Your task to perform on an android device: What's the weather today? Image 0: 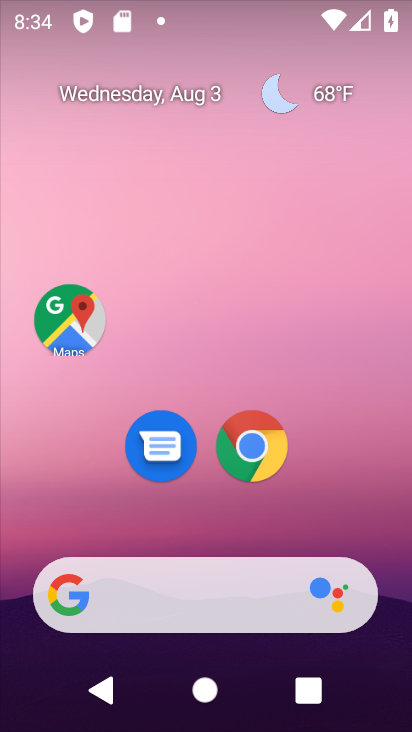
Step 0: drag from (392, 677) to (343, 186)
Your task to perform on an android device: What's the weather today? Image 1: 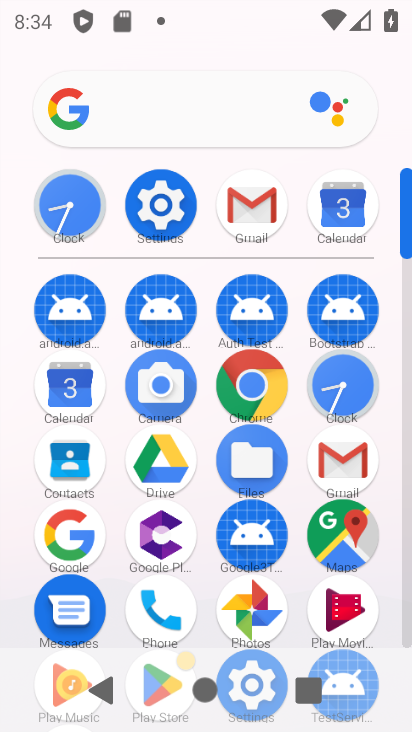
Step 1: click (88, 526)
Your task to perform on an android device: What's the weather today? Image 2: 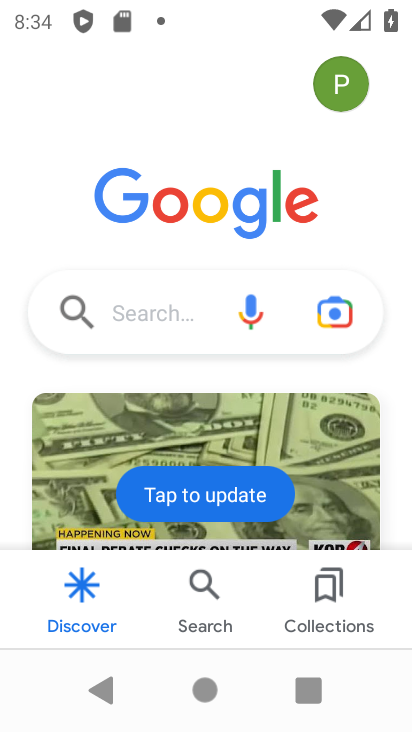
Step 2: task complete